Your task to perform on an android device: Search for hotels in Boston Image 0: 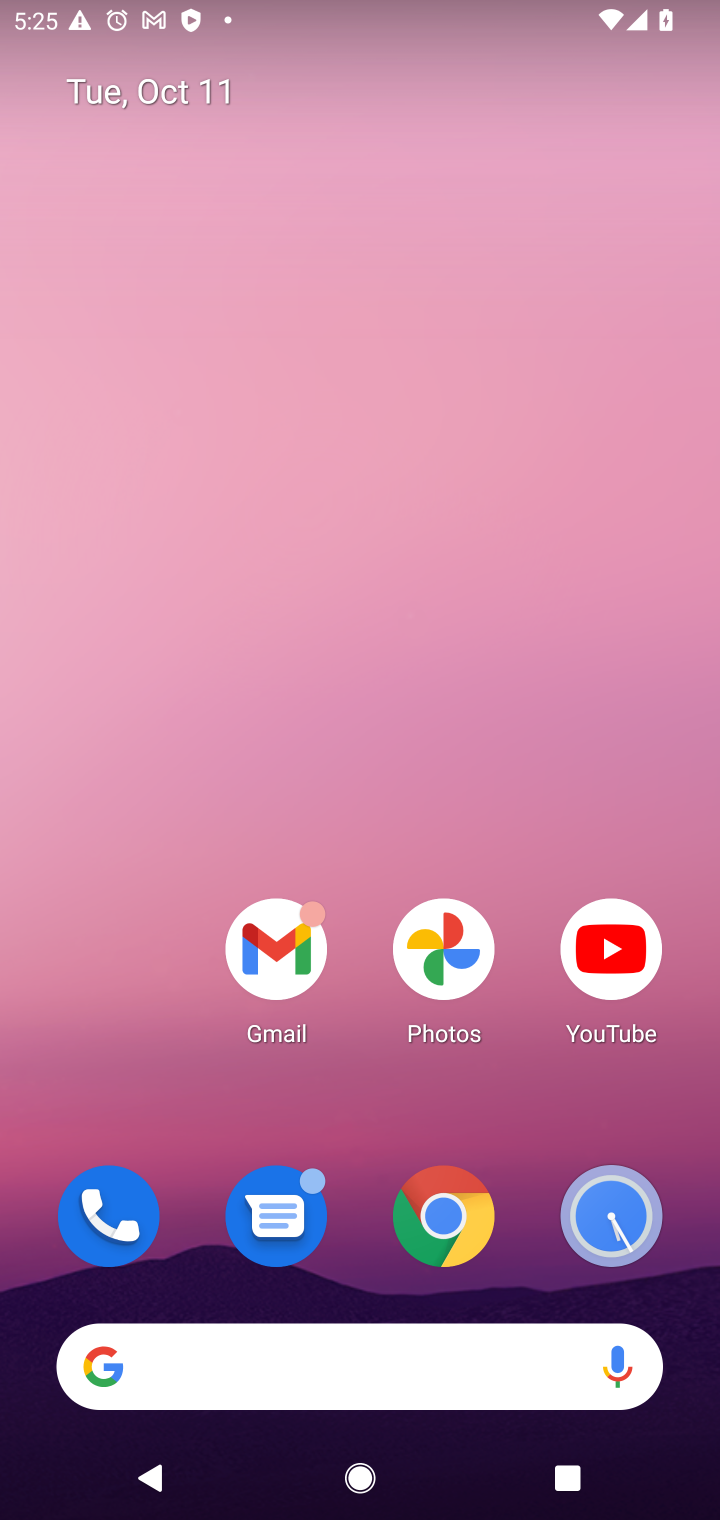
Step 0: click (433, 1234)
Your task to perform on an android device: Search for hotels in Boston Image 1: 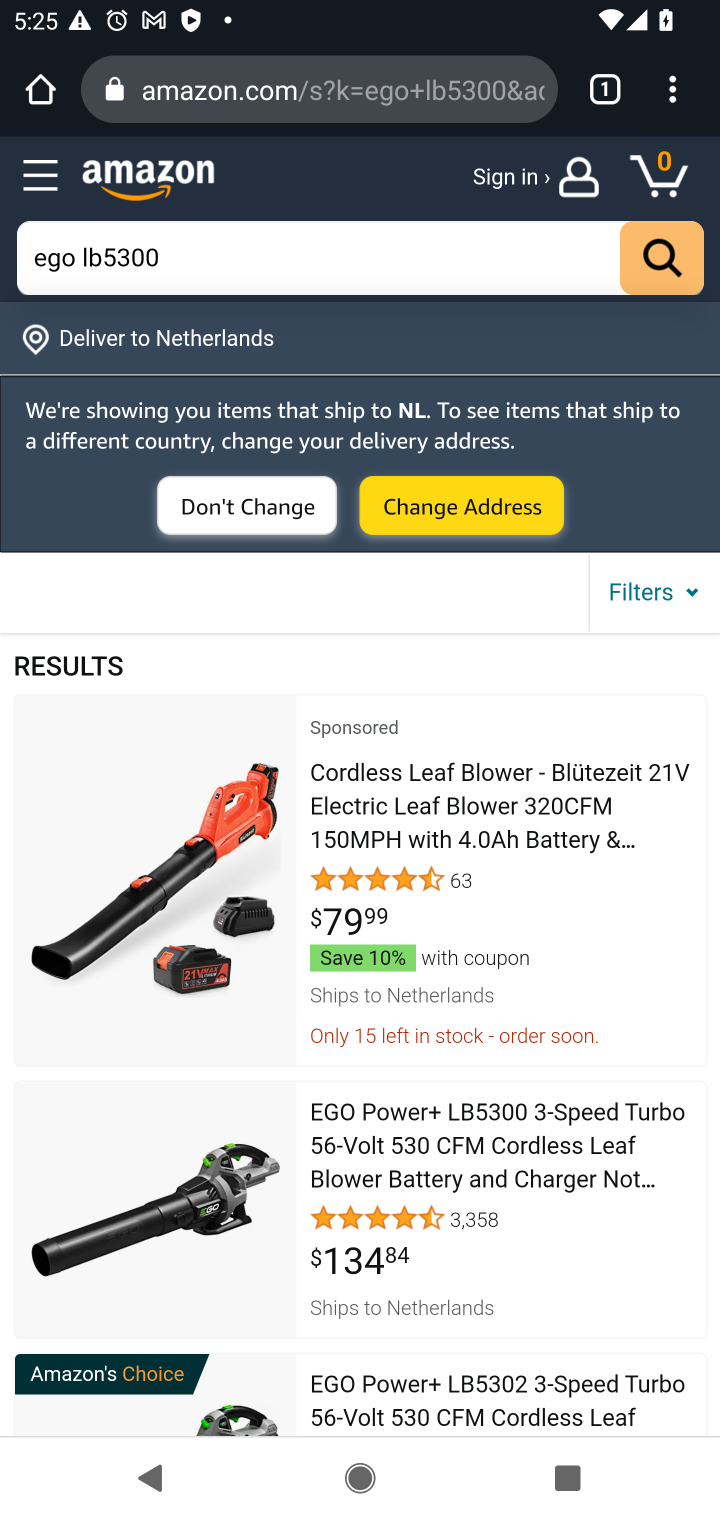
Step 1: click (279, 99)
Your task to perform on an android device: Search for hotels in Boston Image 2: 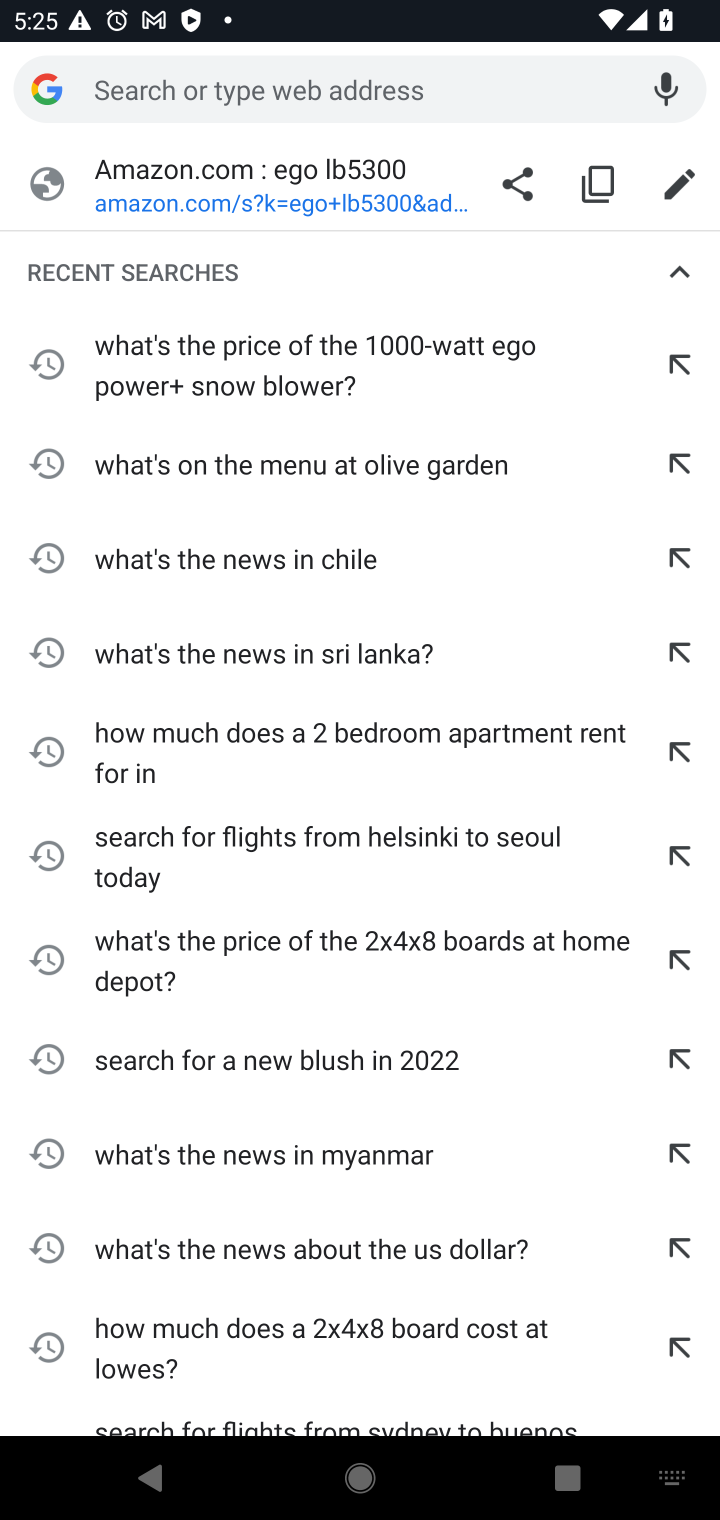
Step 2: type "hotels in Boston"
Your task to perform on an android device: Search for hotels in Boston Image 3: 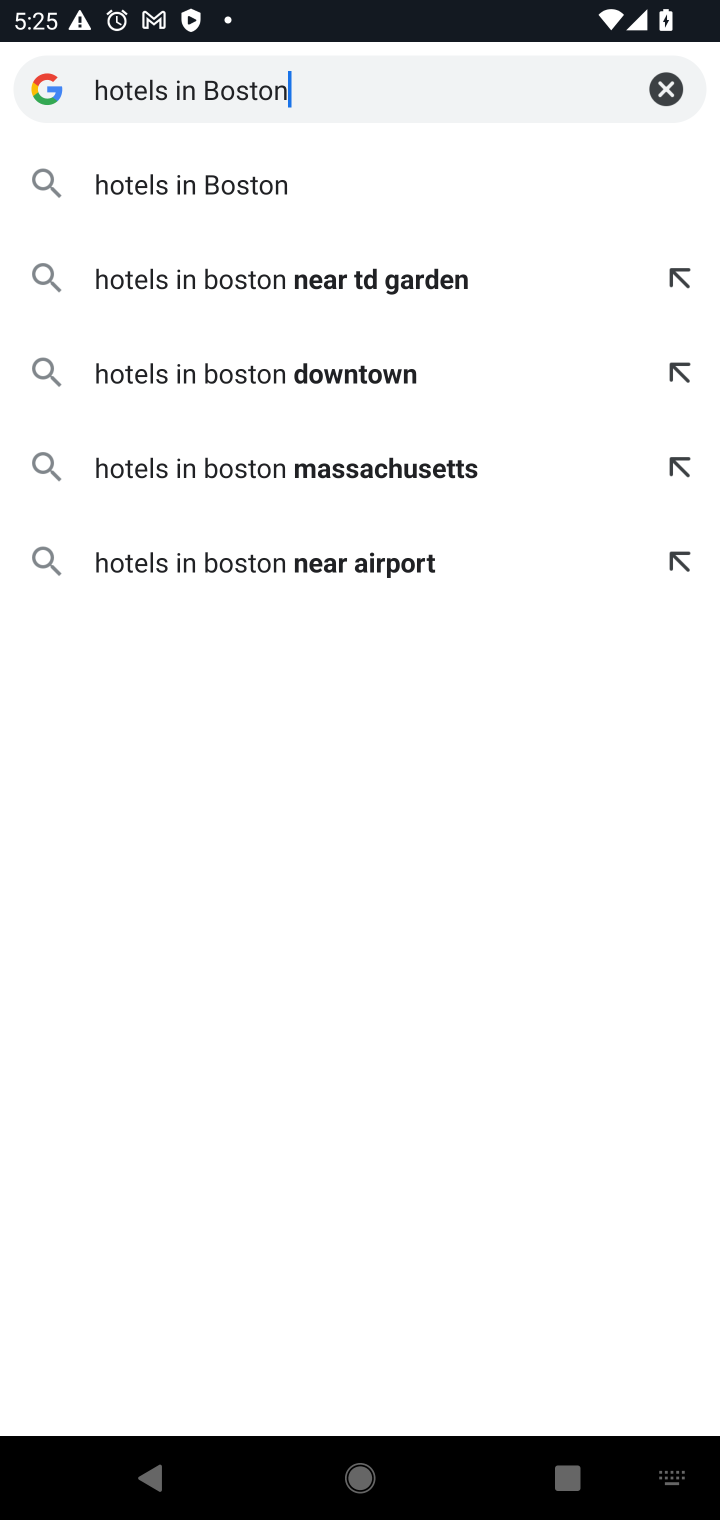
Step 3: press enter
Your task to perform on an android device: Search for hotels in Boston Image 4: 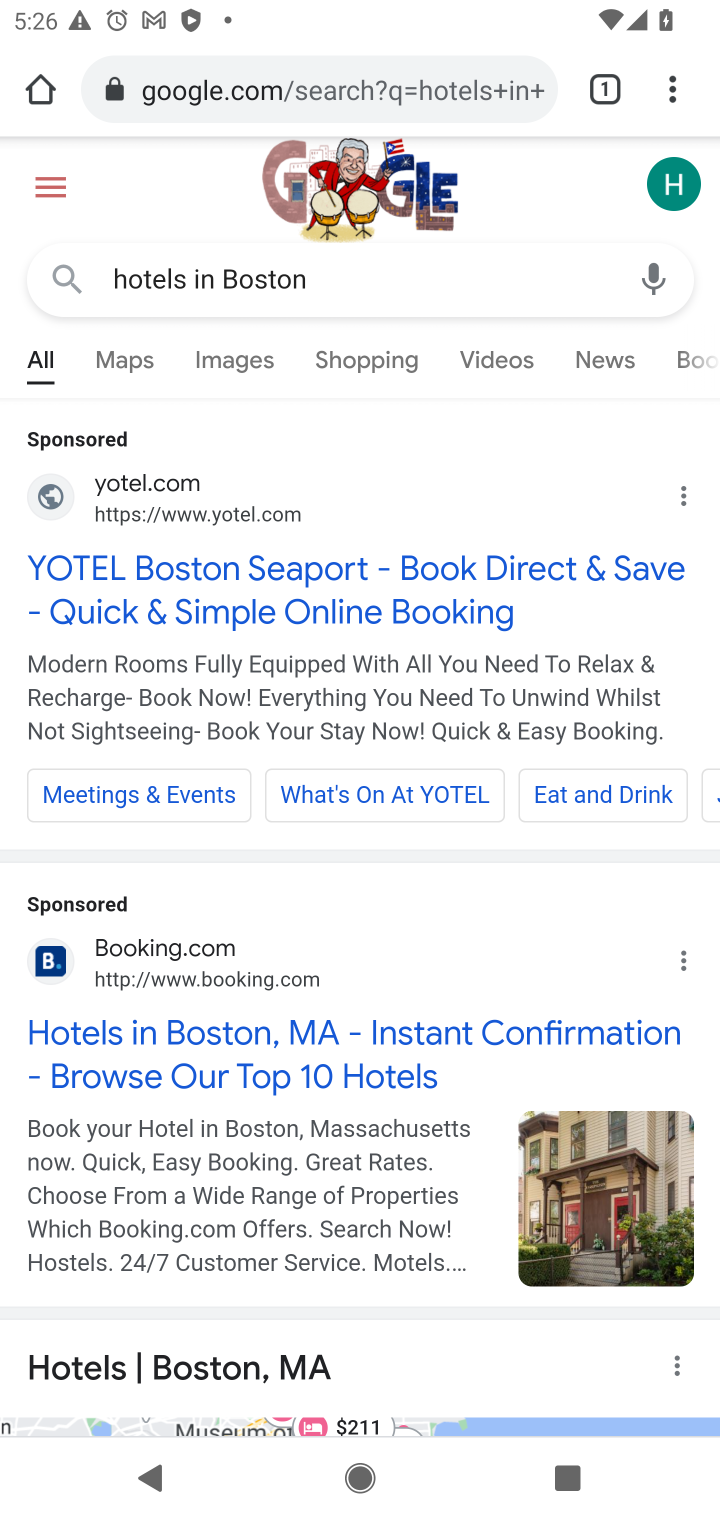
Step 4: task complete